Your task to perform on an android device: find photos in the google photos app Image 0: 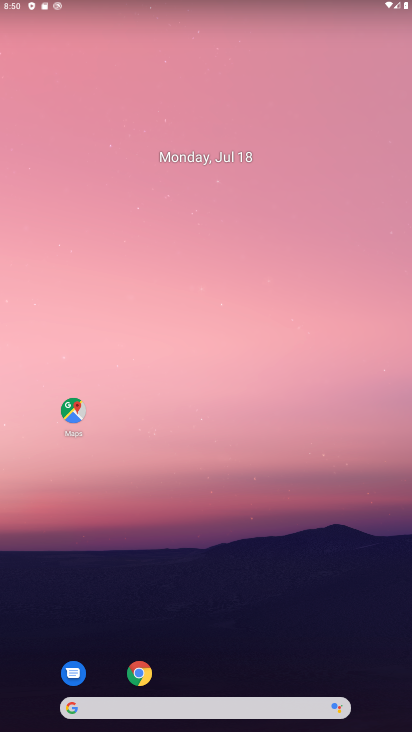
Step 0: drag from (227, 658) to (239, 134)
Your task to perform on an android device: find photos in the google photos app Image 1: 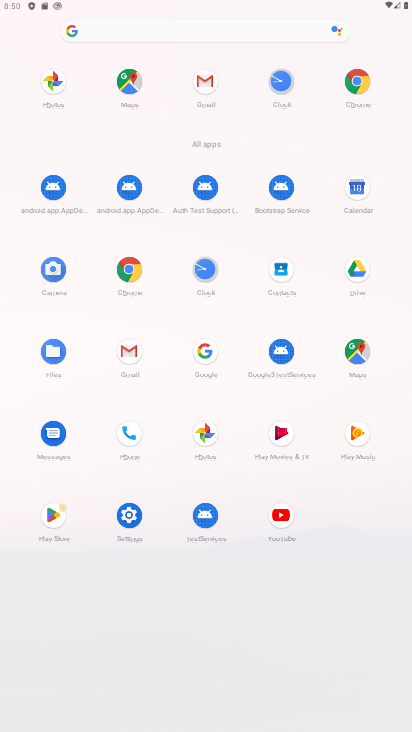
Step 1: click (202, 443)
Your task to perform on an android device: find photos in the google photos app Image 2: 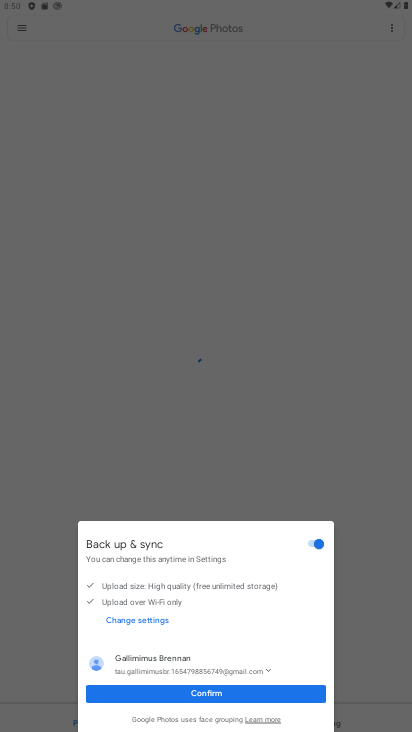
Step 2: click (213, 689)
Your task to perform on an android device: find photos in the google photos app Image 3: 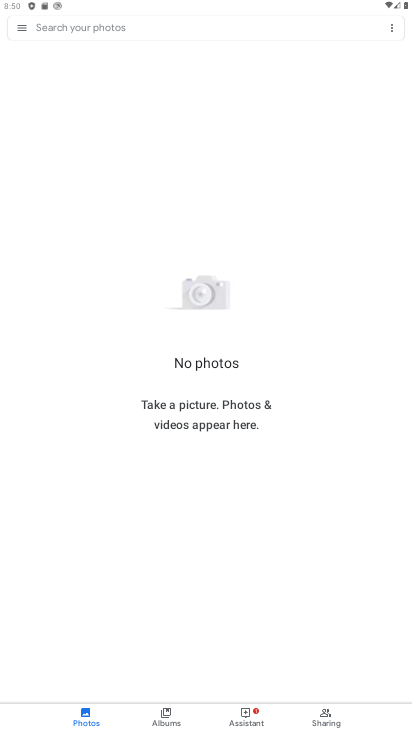
Step 3: task complete